Your task to perform on an android device: turn on notifications settings in the gmail app Image 0: 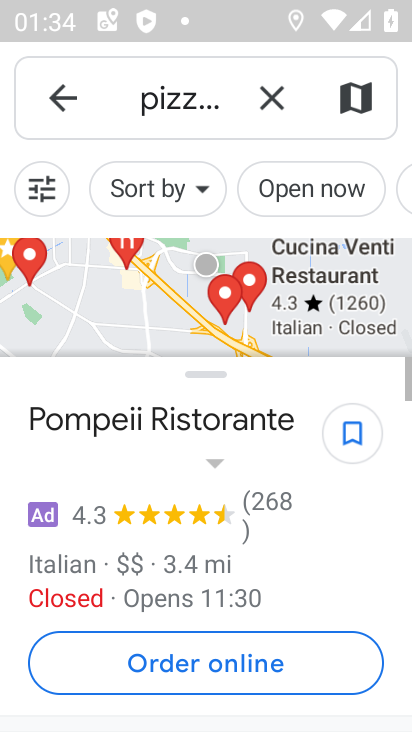
Step 0: drag from (207, 725) to (215, 202)
Your task to perform on an android device: turn on notifications settings in the gmail app Image 1: 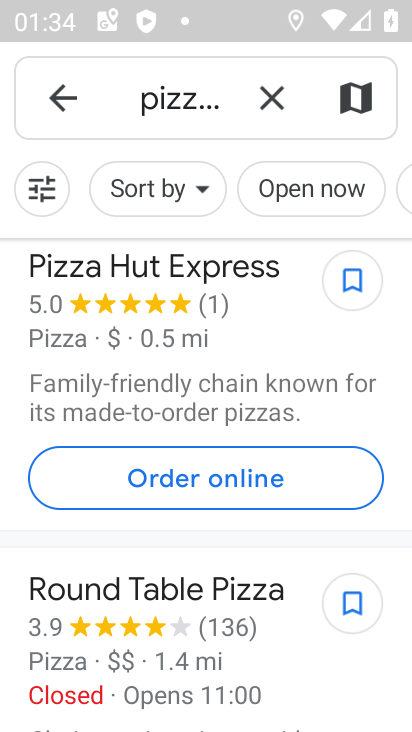
Step 1: press home button
Your task to perform on an android device: turn on notifications settings in the gmail app Image 2: 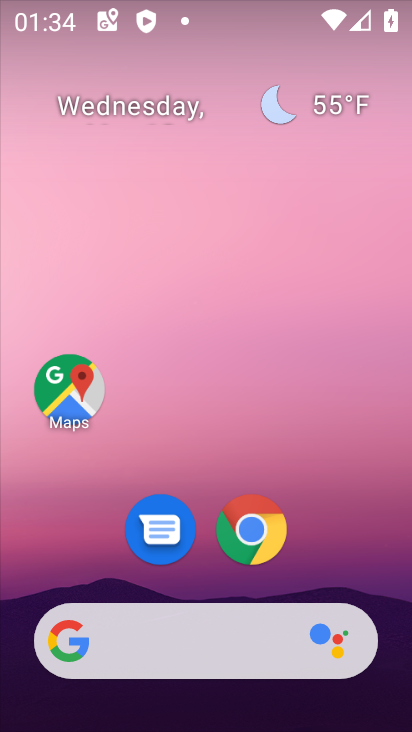
Step 2: drag from (185, 670) to (195, 248)
Your task to perform on an android device: turn on notifications settings in the gmail app Image 3: 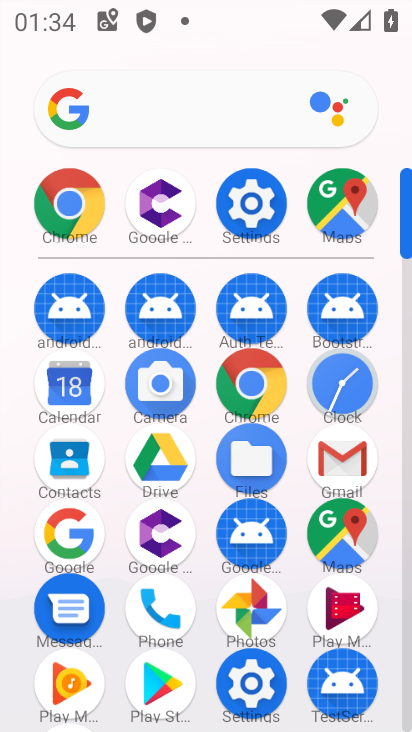
Step 3: click (339, 450)
Your task to perform on an android device: turn on notifications settings in the gmail app Image 4: 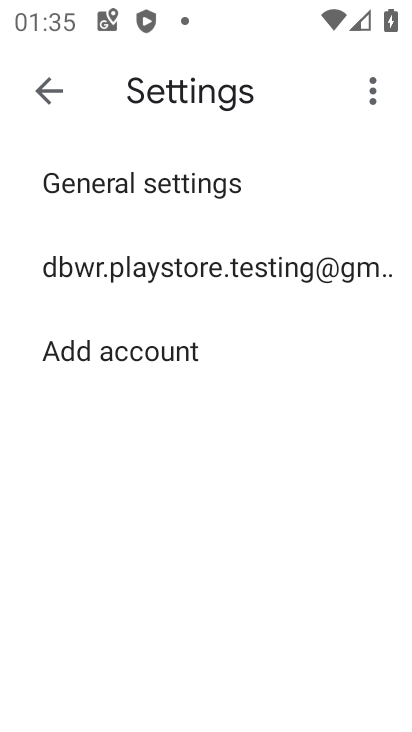
Step 4: click (170, 278)
Your task to perform on an android device: turn on notifications settings in the gmail app Image 5: 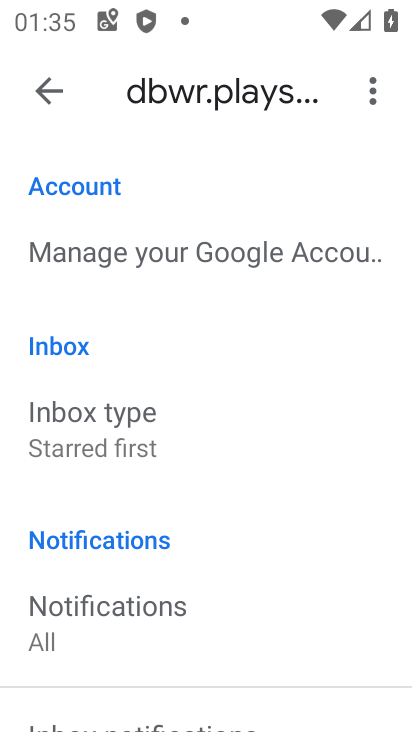
Step 5: task complete